Your task to perform on an android device: Open Google Chrome and click the shortcut for Amazon.com Image 0: 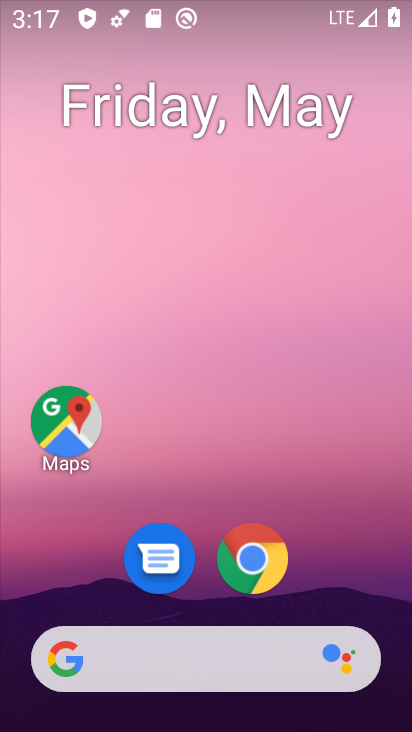
Step 0: press home button
Your task to perform on an android device: Open Google Chrome and click the shortcut for Amazon.com Image 1: 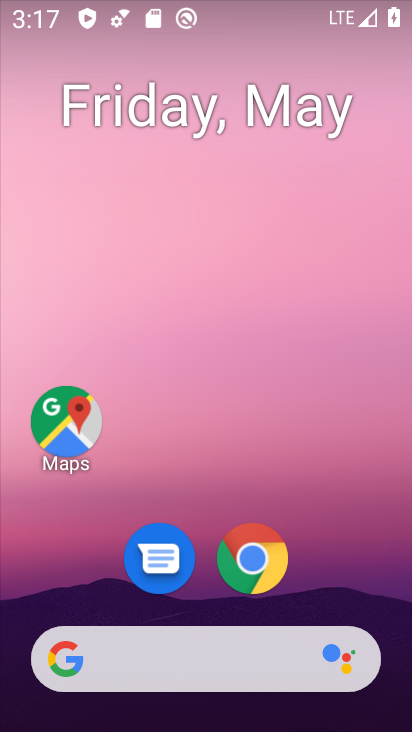
Step 1: click (256, 570)
Your task to perform on an android device: Open Google Chrome and click the shortcut for Amazon.com Image 2: 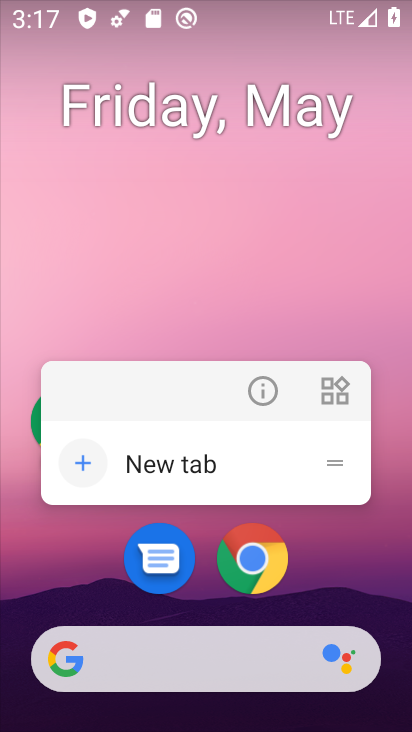
Step 2: click (256, 569)
Your task to perform on an android device: Open Google Chrome and click the shortcut for Amazon.com Image 3: 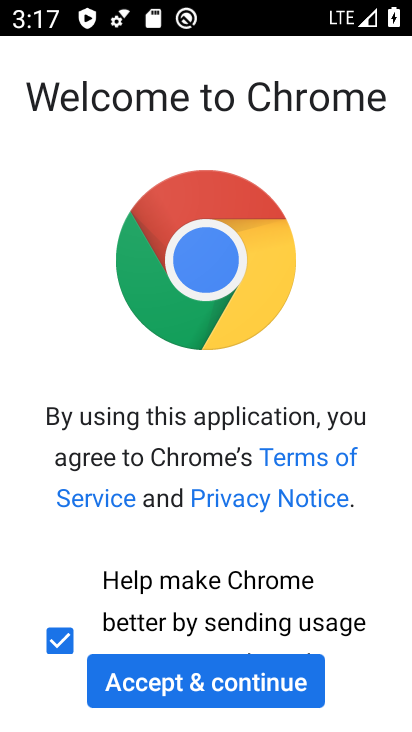
Step 3: click (202, 688)
Your task to perform on an android device: Open Google Chrome and click the shortcut for Amazon.com Image 4: 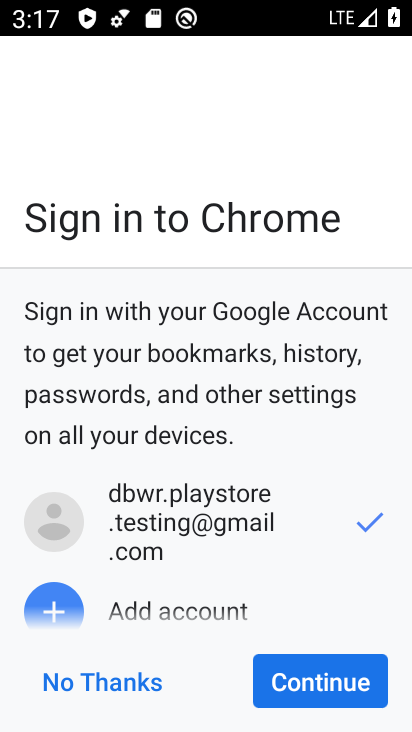
Step 4: click (323, 689)
Your task to perform on an android device: Open Google Chrome and click the shortcut for Amazon.com Image 5: 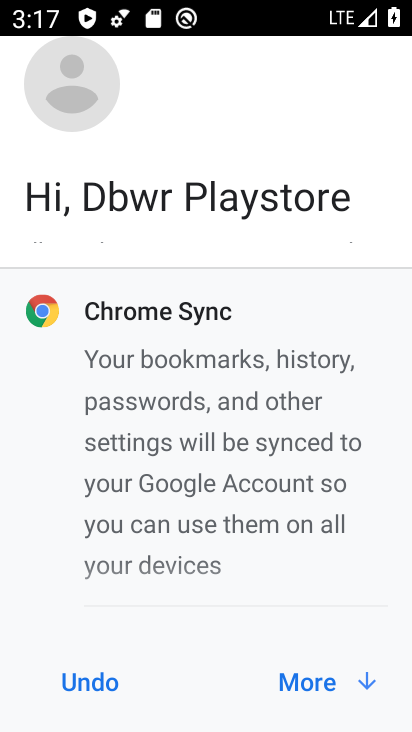
Step 5: click (323, 689)
Your task to perform on an android device: Open Google Chrome and click the shortcut for Amazon.com Image 6: 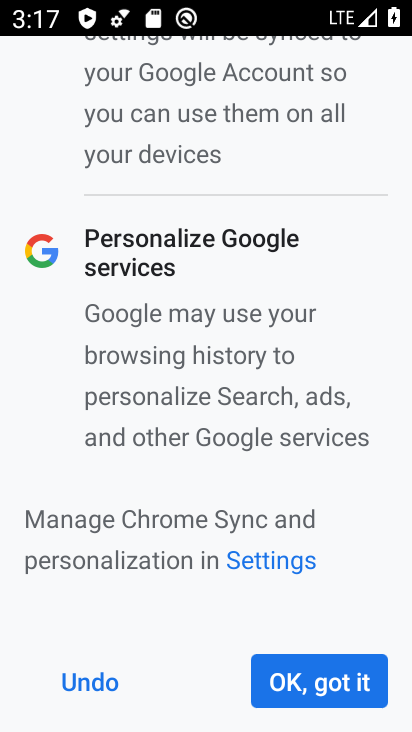
Step 6: click (323, 689)
Your task to perform on an android device: Open Google Chrome and click the shortcut for Amazon.com Image 7: 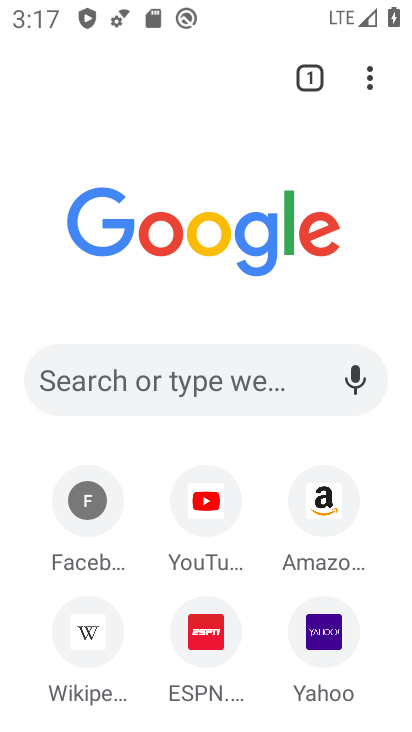
Step 7: click (318, 491)
Your task to perform on an android device: Open Google Chrome and click the shortcut for Amazon.com Image 8: 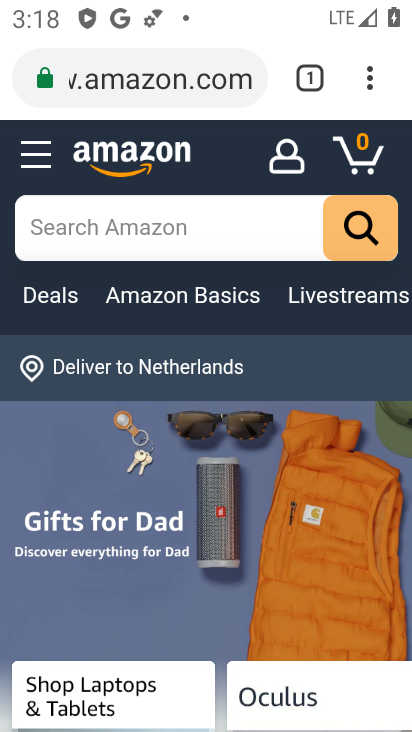
Step 8: task complete